Your task to perform on an android device: How do I get to the nearest Sprint Store? Image 0: 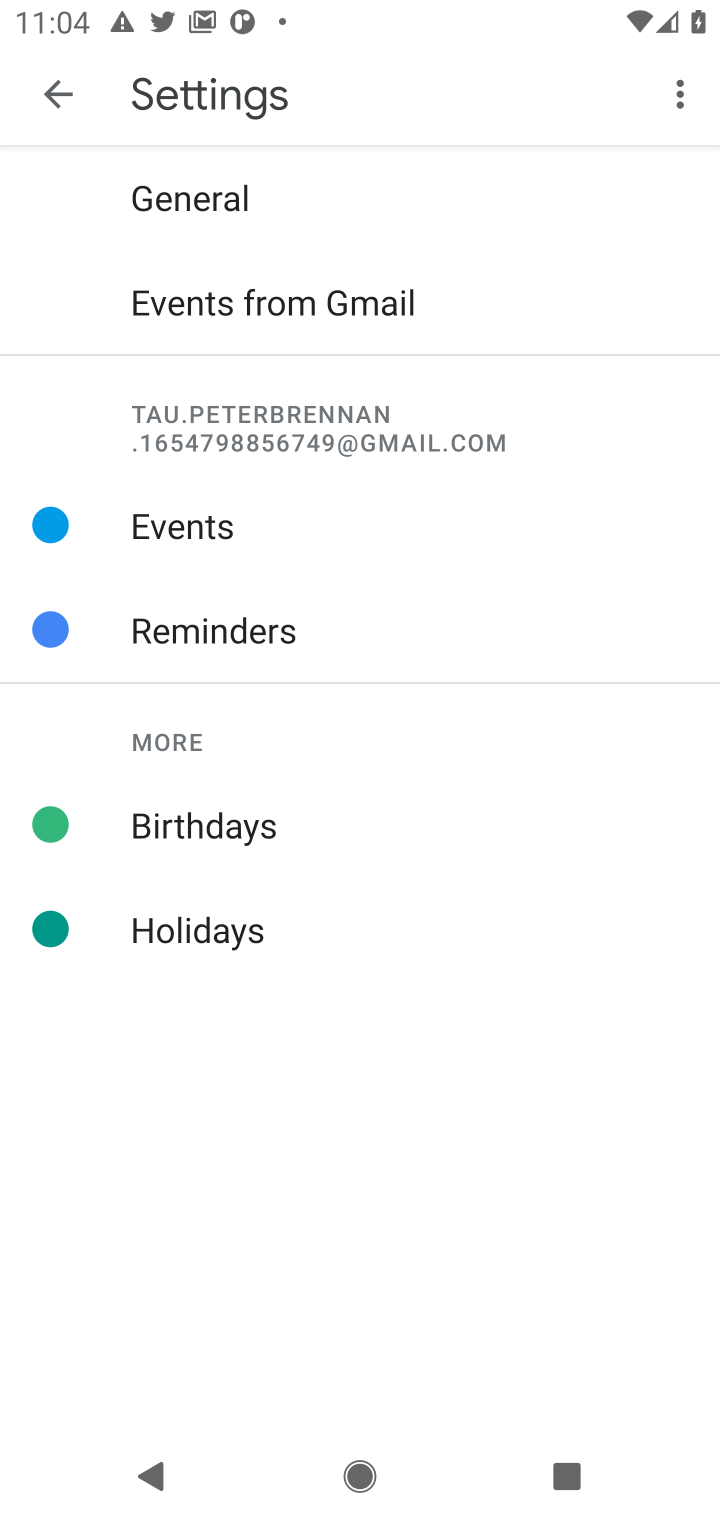
Step 0: press home button
Your task to perform on an android device: How do I get to the nearest Sprint Store? Image 1: 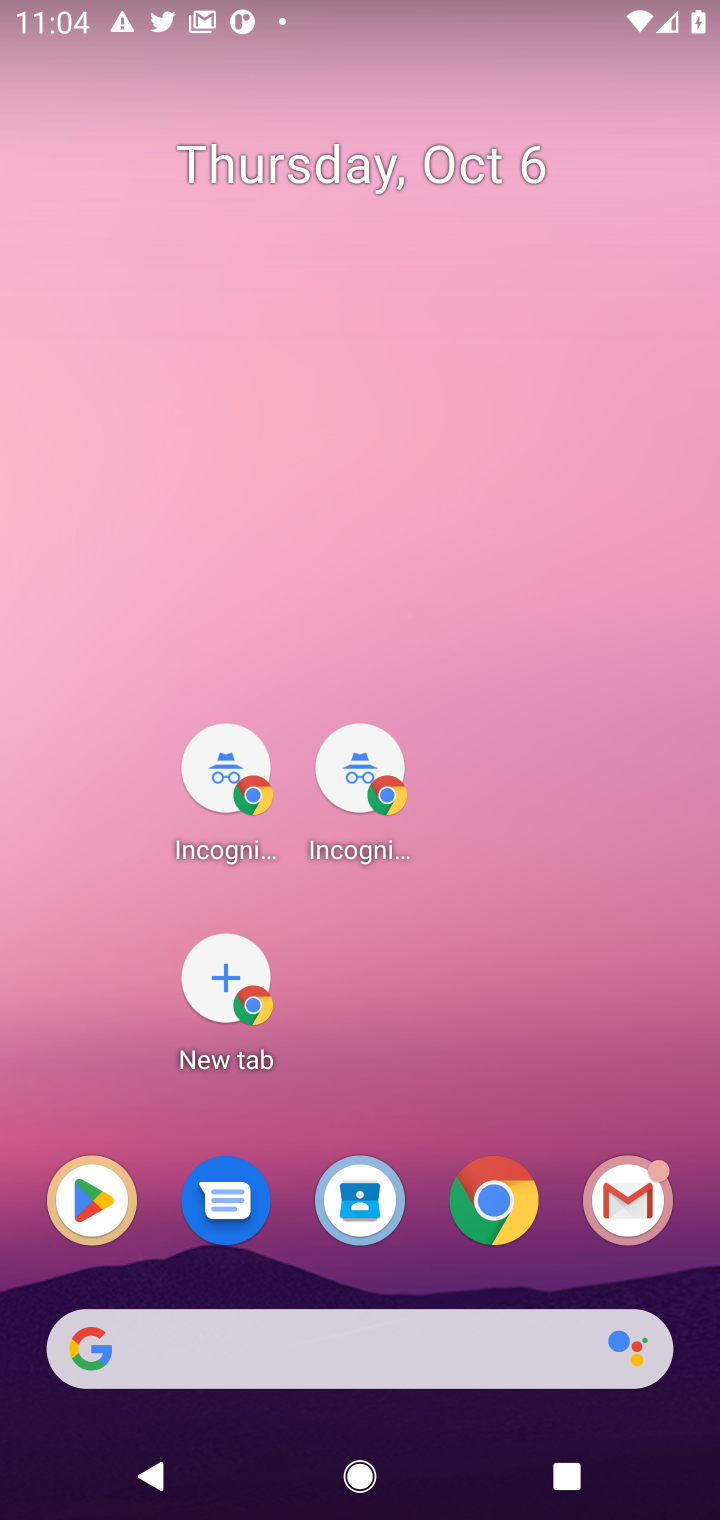
Step 1: click (485, 1195)
Your task to perform on an android device: How do I get to the nearest Sprint Store? Image 2: 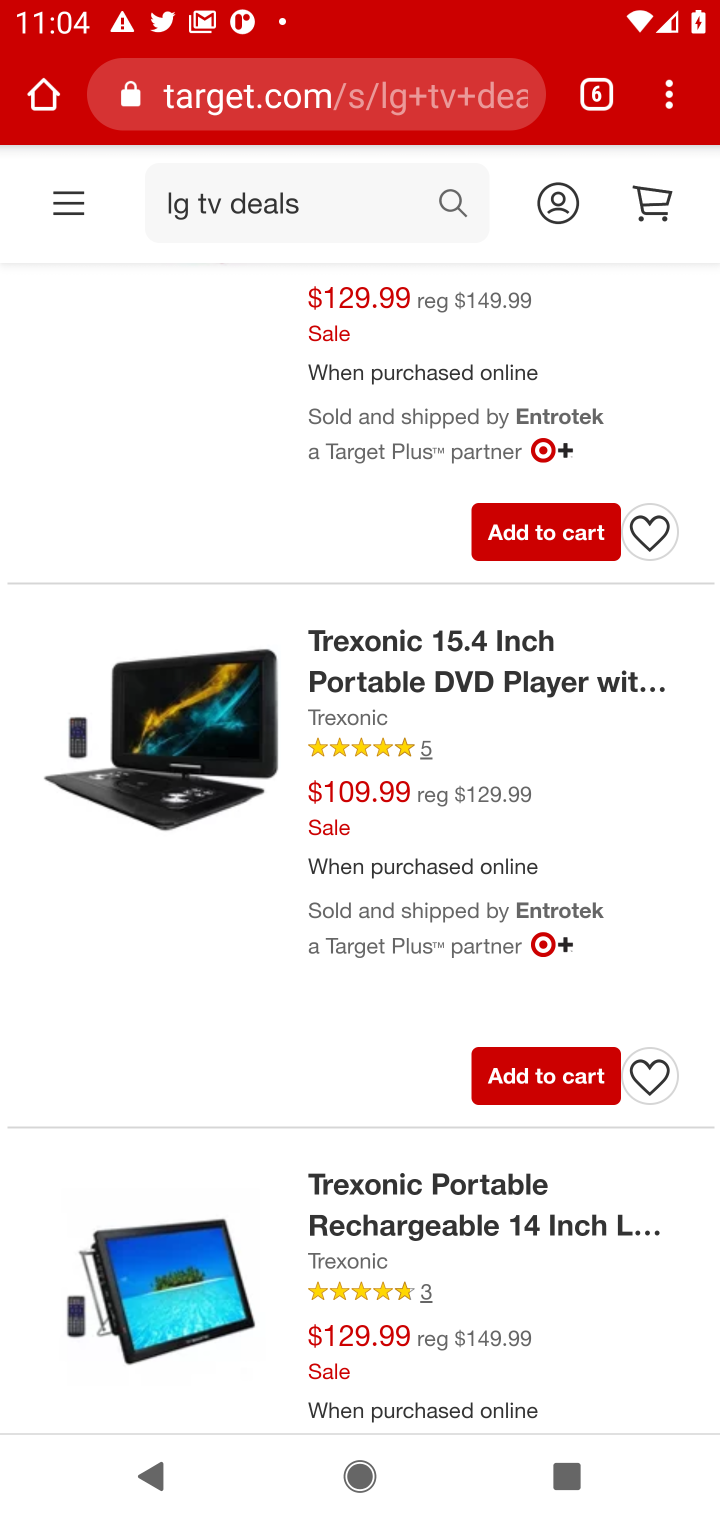
Step 2: click (351, 111)
Your task to perform on an android device: How do I get to the nearest Sprint Store? Image 3: 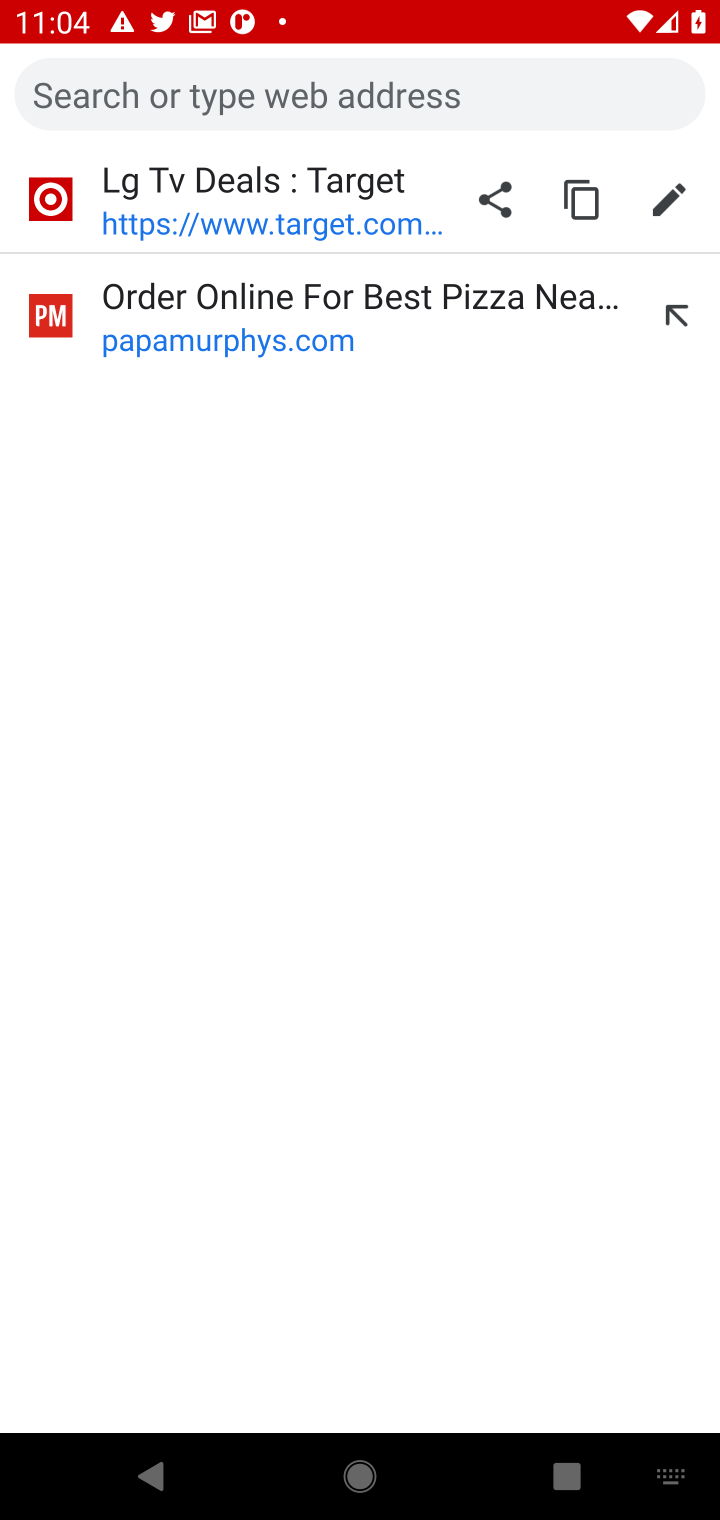
Step 3: type "nearest sprint store "
Your task to perform on an android device: How do I get to the nearest Sprint Store? Image 4: 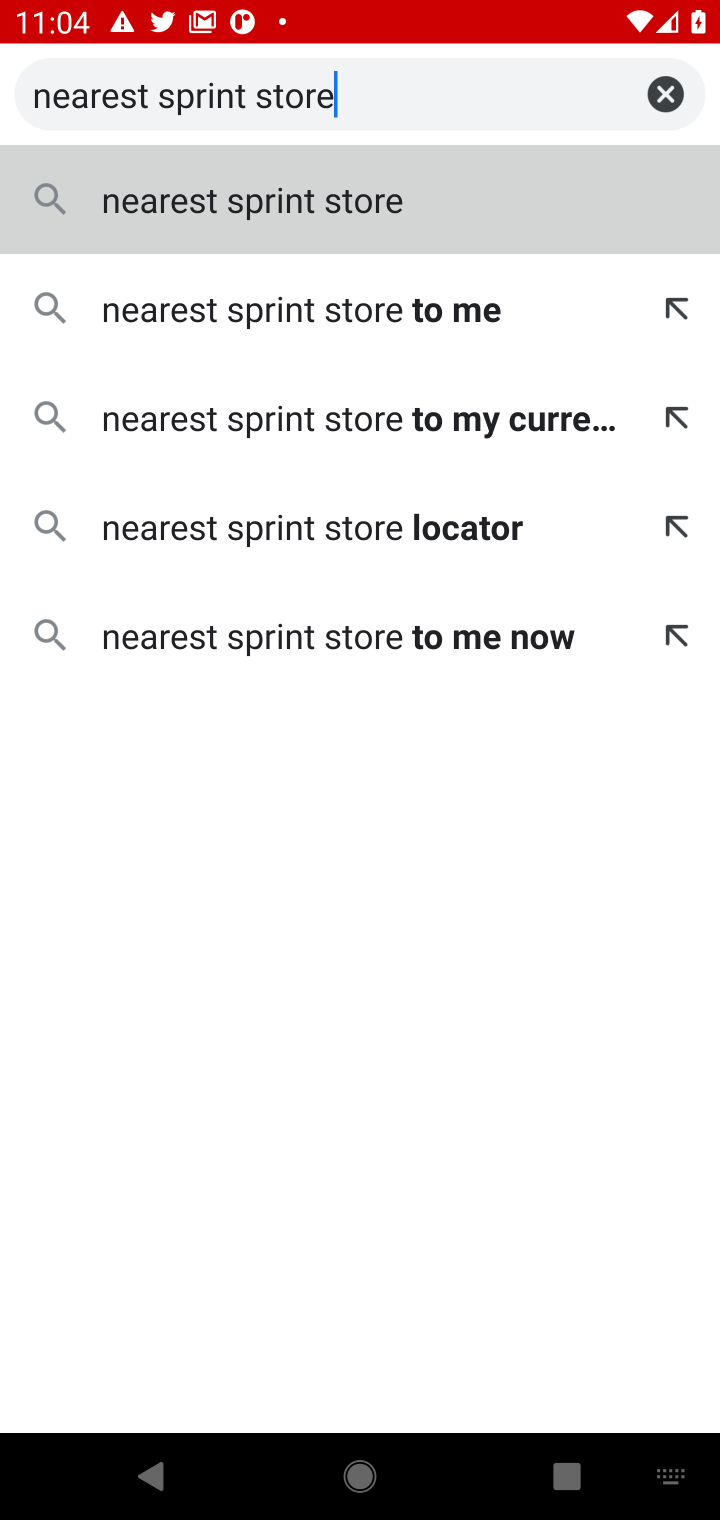
Step 4: click (306, 219)
Your task to perform on an android device: How do I get to the nearest Sprint Store? Image 5: 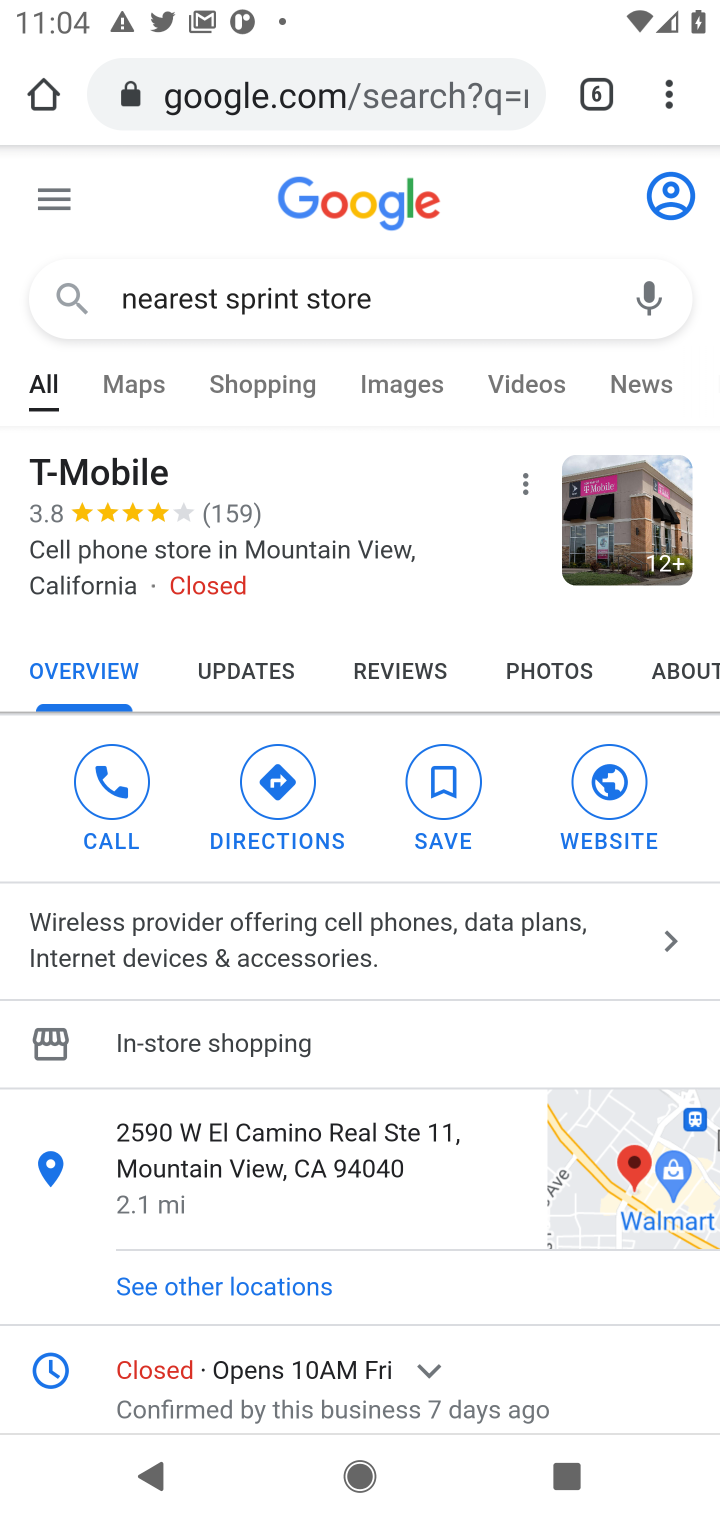
Step 5: drag from (262, 1145) to (365, 322)
Your task to perform on an android device: How do I get to the nearest Sprint Store? Image 6: 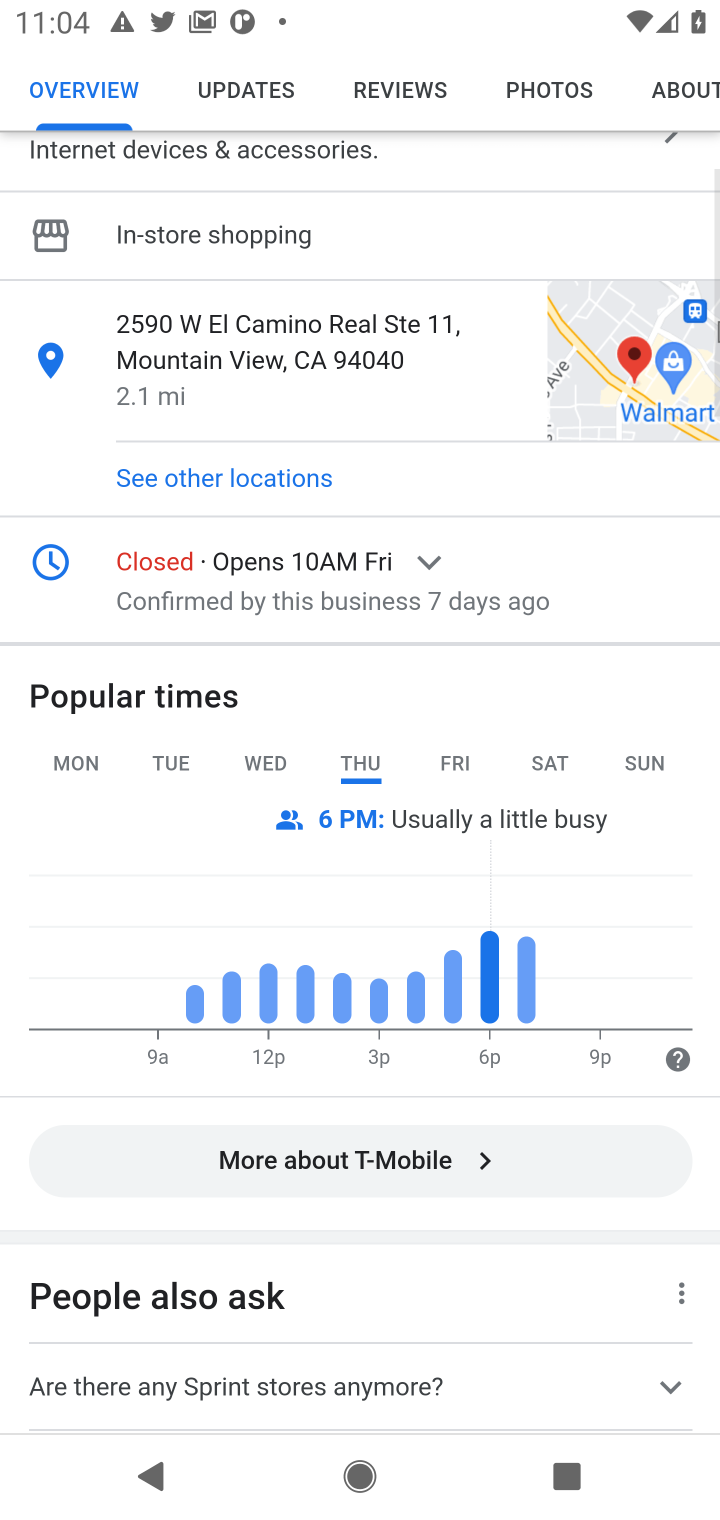
Step 6: drag from (280, 1195) to (481, 434)
Your task to perform on an android device: How do I get to the nearest Sprint Store? Image 7: 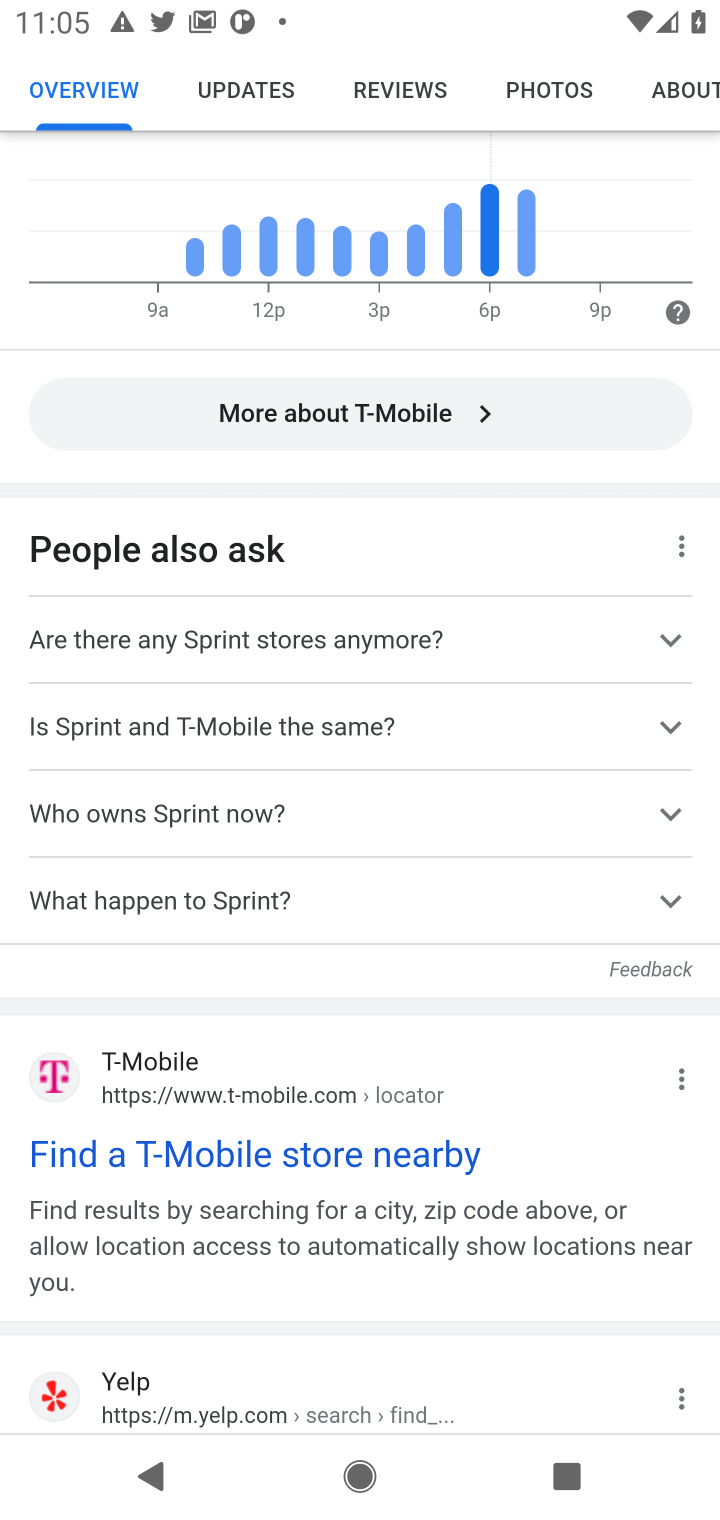
Step 7: drag from (321, 1221) to (503, 553)
Your task to perform on an android device: How do I get to the nearest Sprint Store? Image 8: 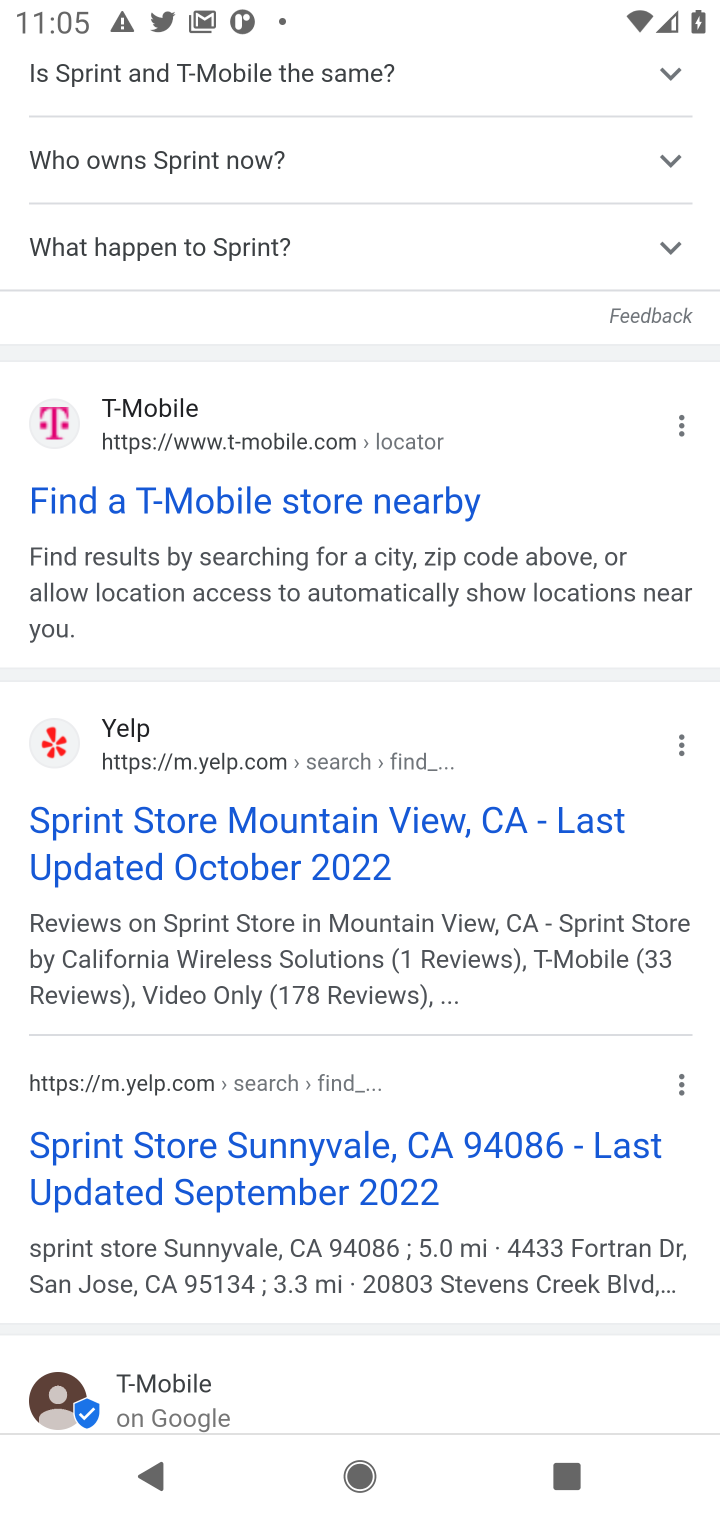
Step 8: drag from (274, 1121) to (346, 555)
Your task to perform on an android device: How do I get to the nearest Sprint Store? Image 9: 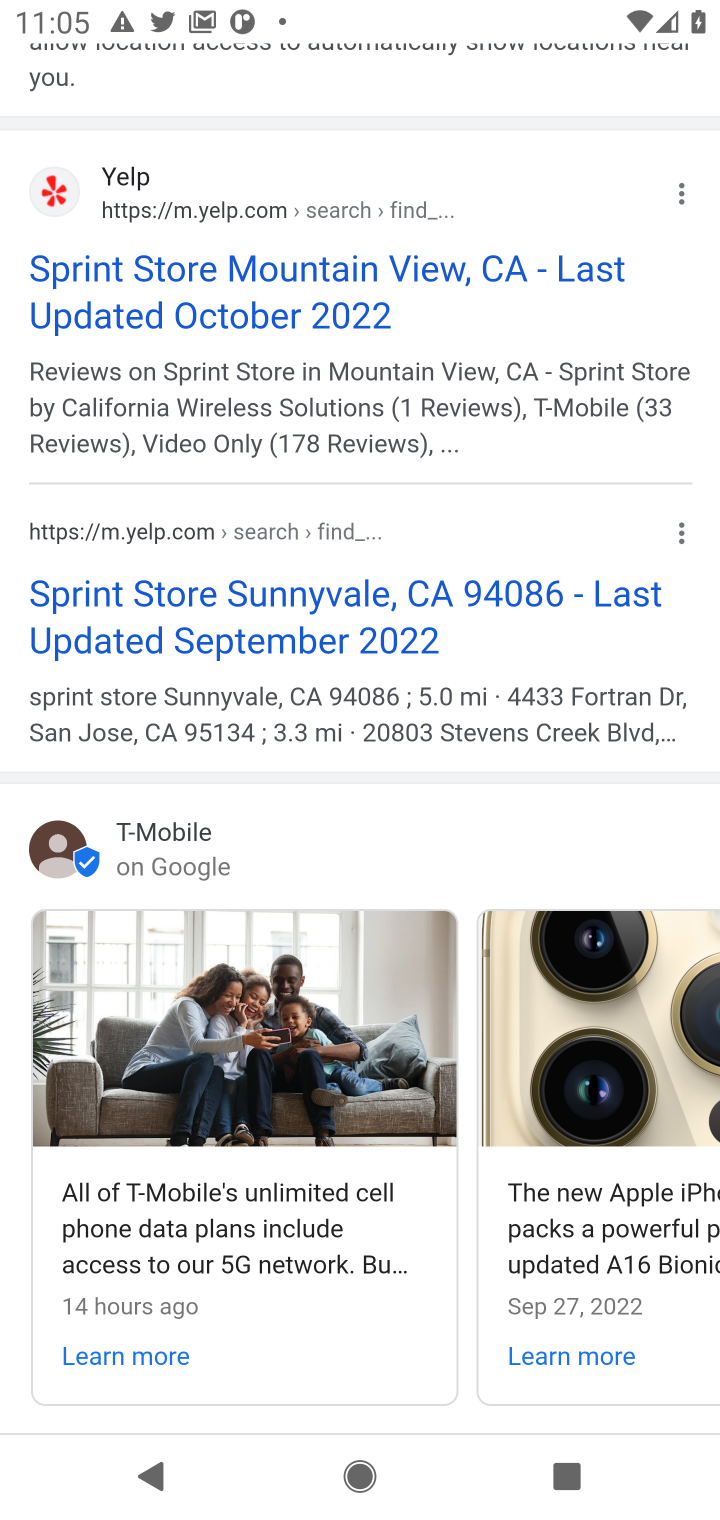
Step 9: drag from (188, 1129) to (323, 465)
Your task to perform on an android device: How do I get to the nearest Sprint Store? Image 10: 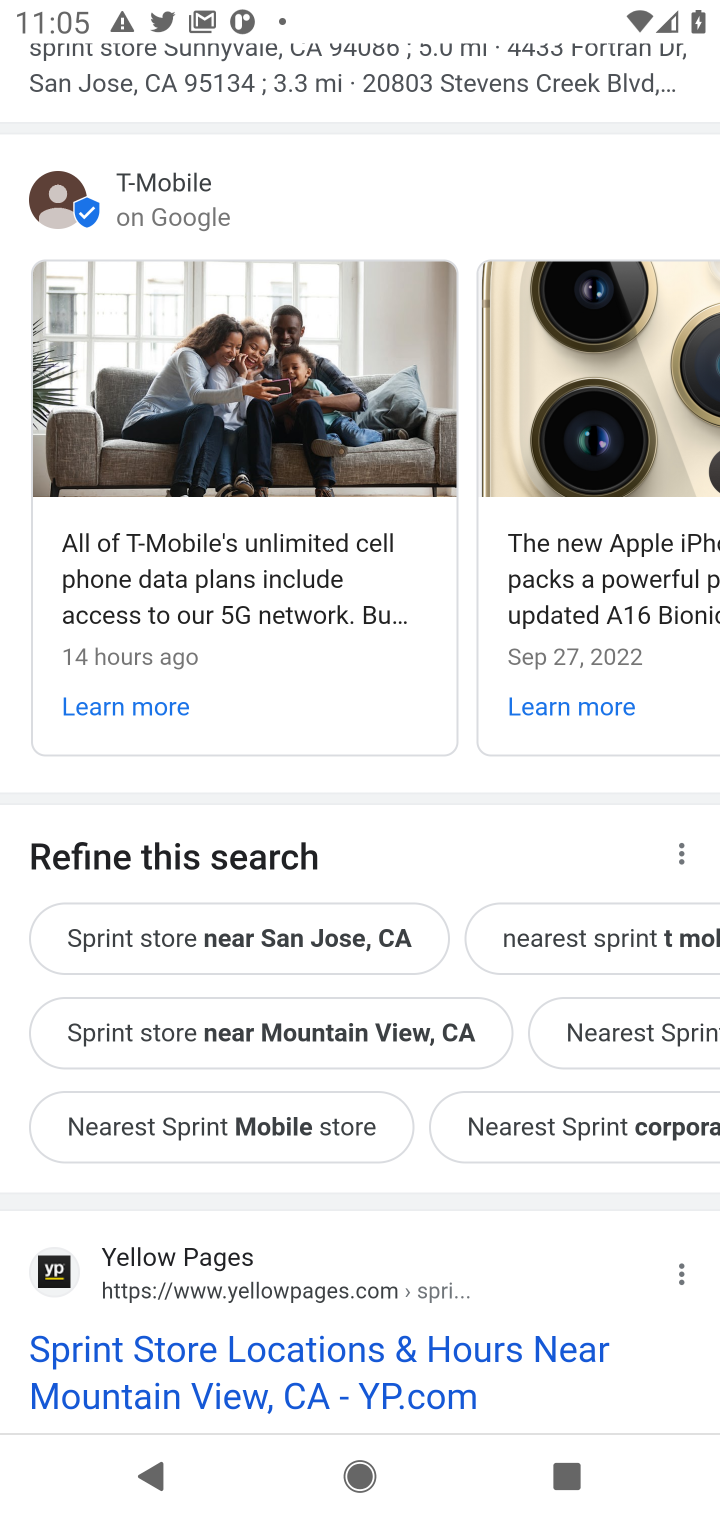
Step 10: drag from (185, 817) to (247, 375)
Your task to perform on an android device: How do I get to the nearest Sprint Store? Image 11: 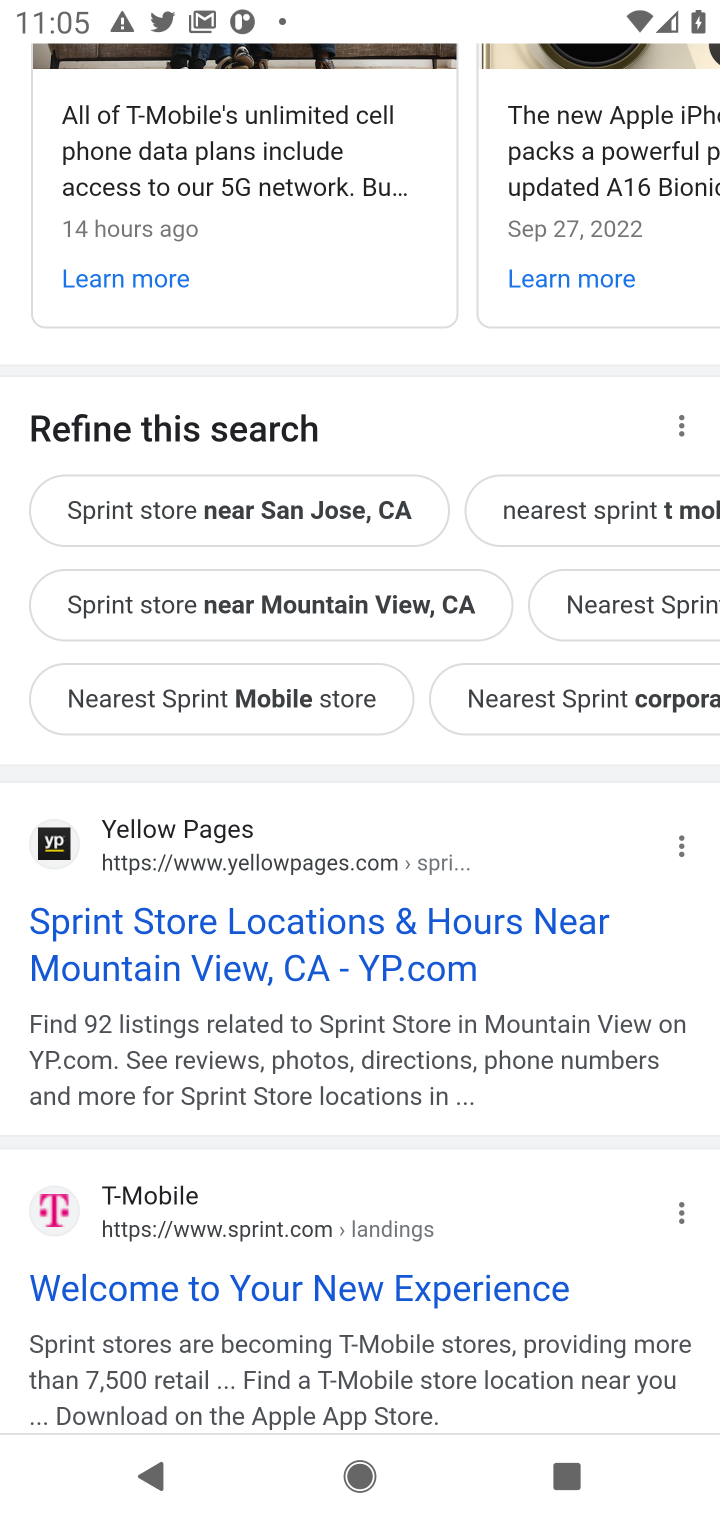
Step 11: click (171, 922)
Your task to perform on an android device: How do I get to the nearest Sprint Store? Image 12: 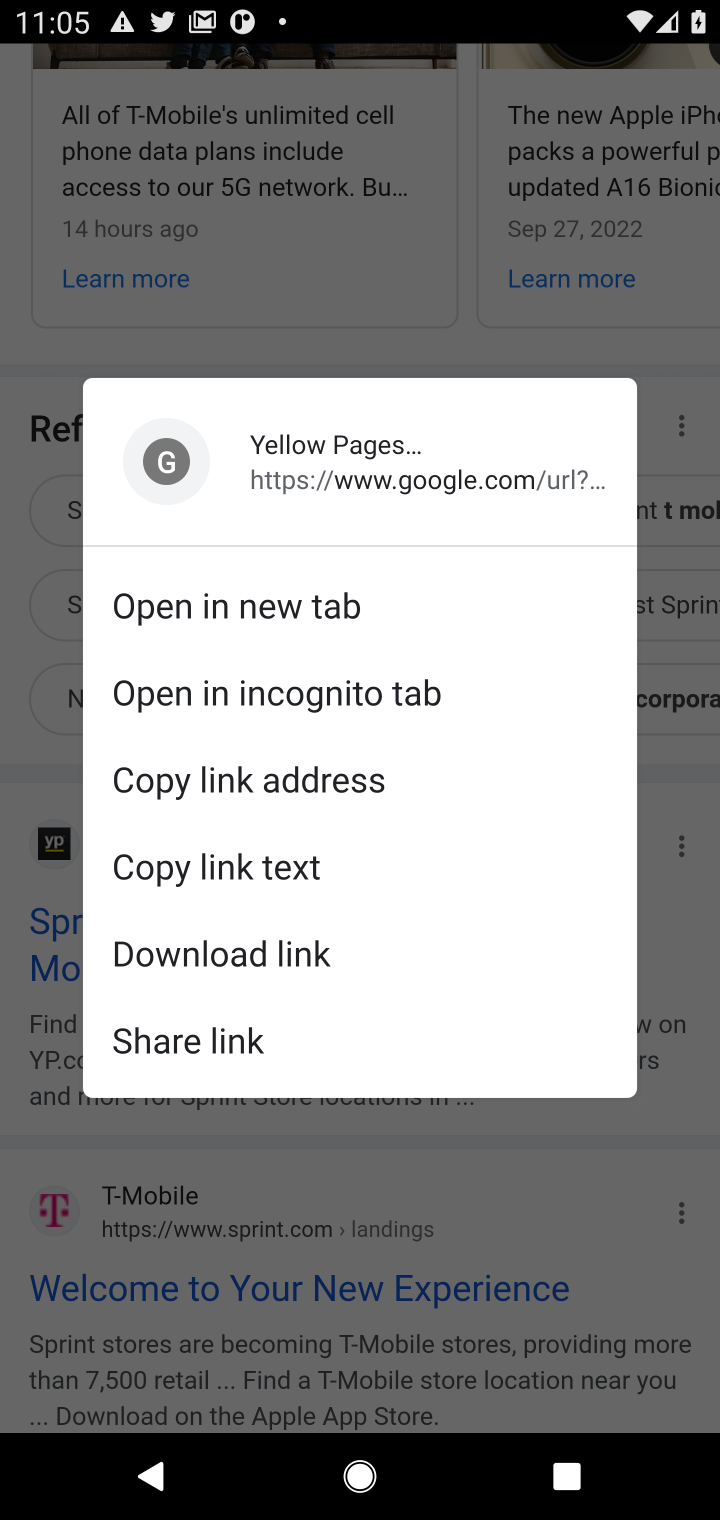
Step 12: click (248, 597)
Your task to perform on an android device: How do I get to the nearest Sprint Store? Image 13: 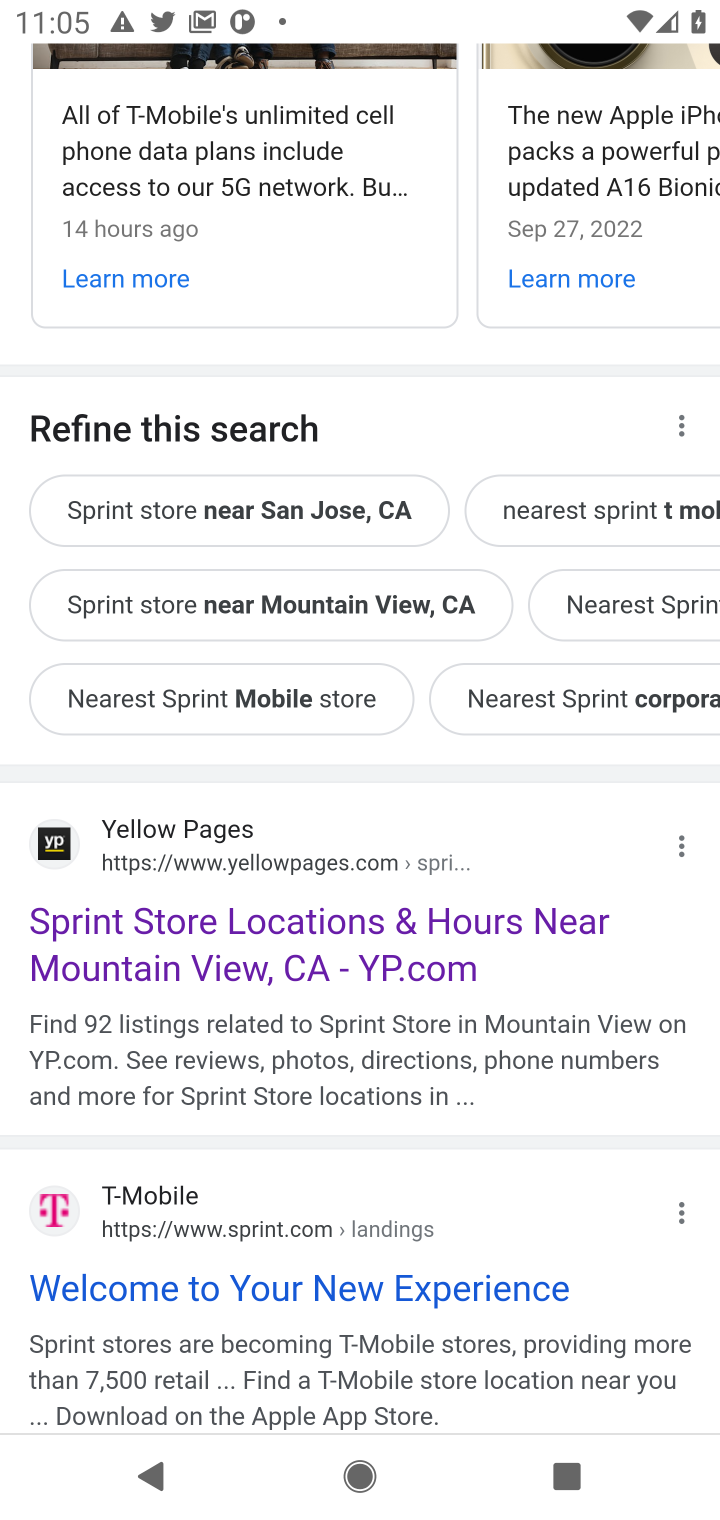
Step 13: task complete